Your task to perform on an android device: Is it going to rain today? Image 0: 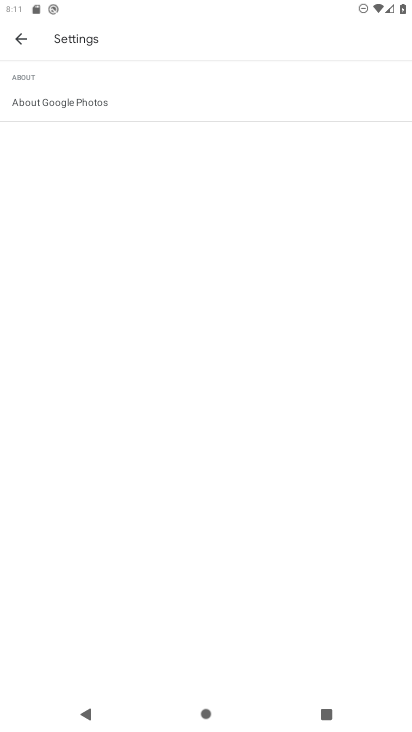
Step 0: press home button
Your task to perform on an android device: Is it going to rain today? Image 1: 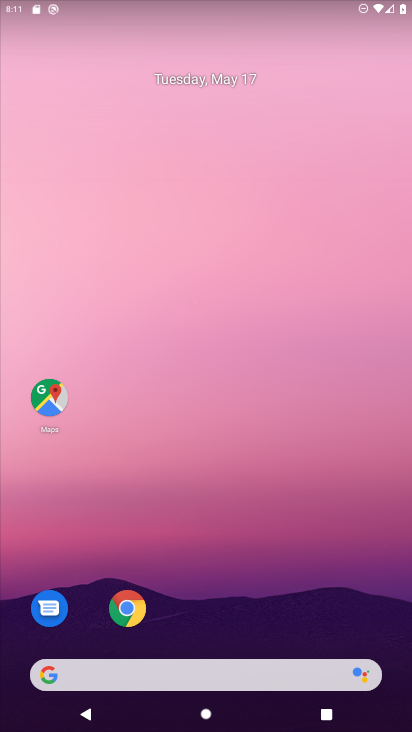
Step 1: click (138, 674)
Your task to perform on an android device: Is it going to rain today? Image 2: 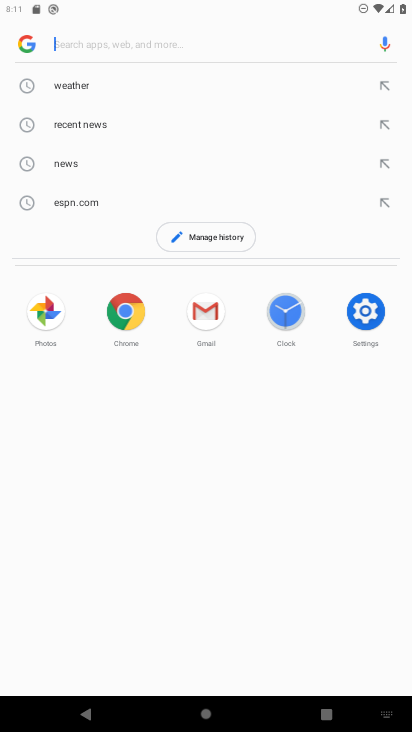
Step 2: click (78, 89)
Your task to perform on an android device: Is it going to rain today? Image 3: 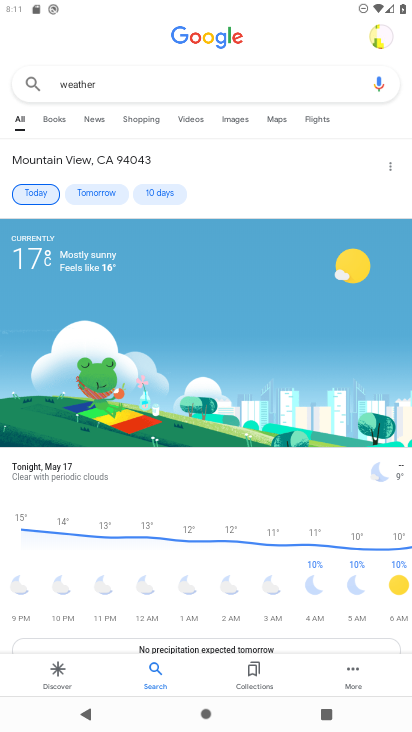
Step 3: task complete